Your task to perform on an android device: open device folders in google photos Image 0: 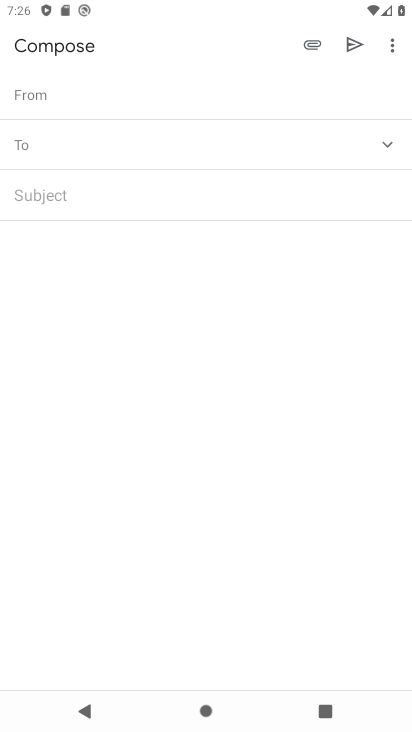
Step 0: press home button
Your task to perform on an android device: open device folders in google photos Image 1: 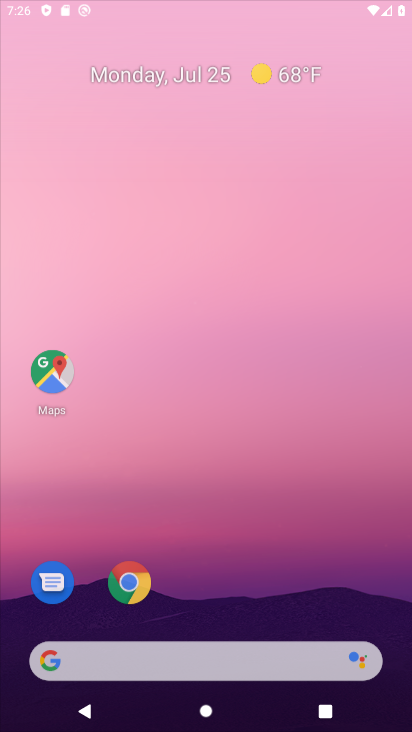
Step 1: press home button
Your task to perform on an android device: open device folders in google photos Image 2: 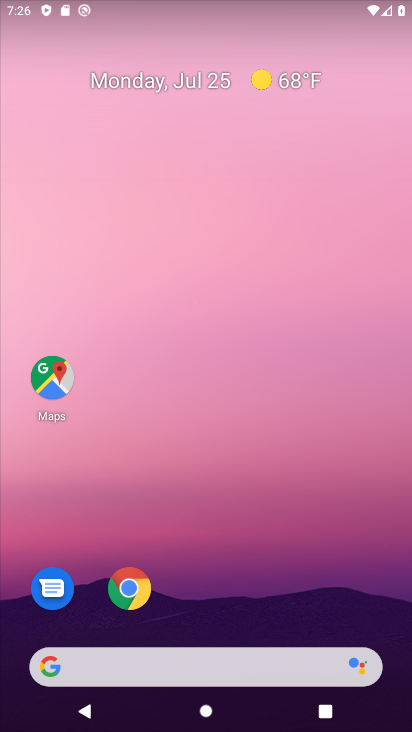
Step 2: drag from (366, 618) to (380, 87)
Your task to perform on an android device: open device folders in google photos Image 3: 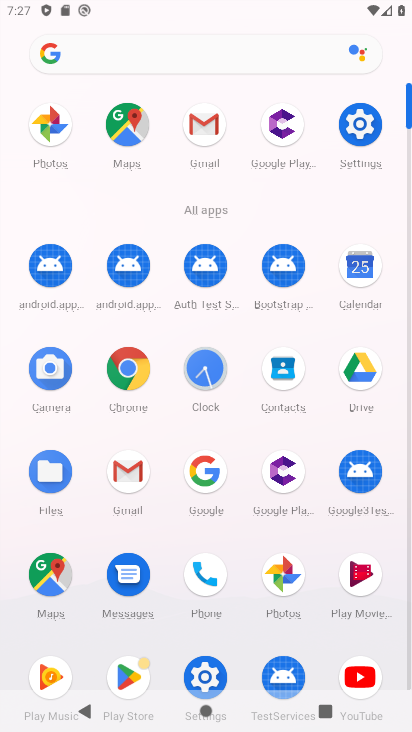
Step 3: click (279, 582)
Your task to perform on an android device: open device folders in google photos Image 4: 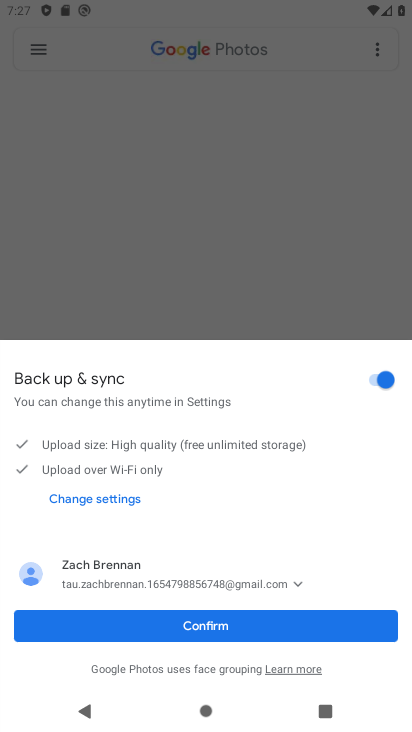
Step 4: click (237, 626)
Your task to perform on an android device: open device folders in google photos Image 5: 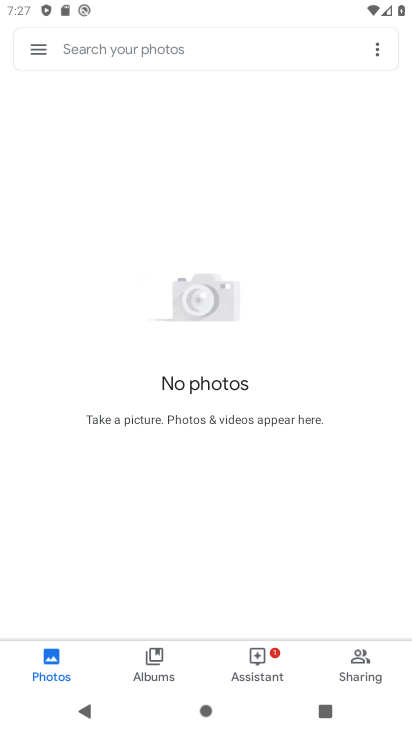
Step 5: click (40, 48)
Your task to perform on an android device: open device folders in google photos Image 6: 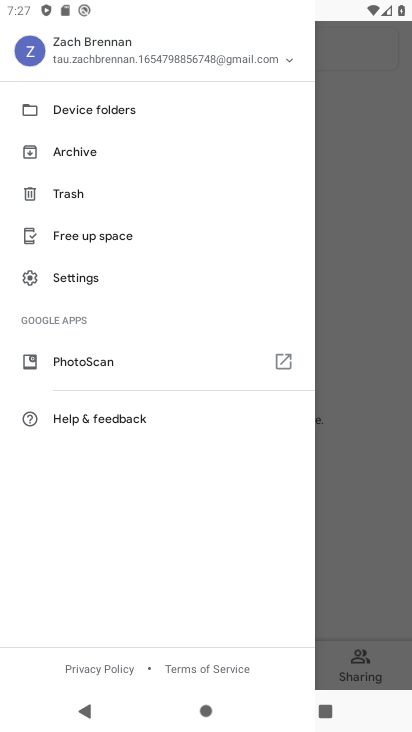
Step 6: click (143, 109)
Your task to perform on an android device: open device folders in google photos Image 7: 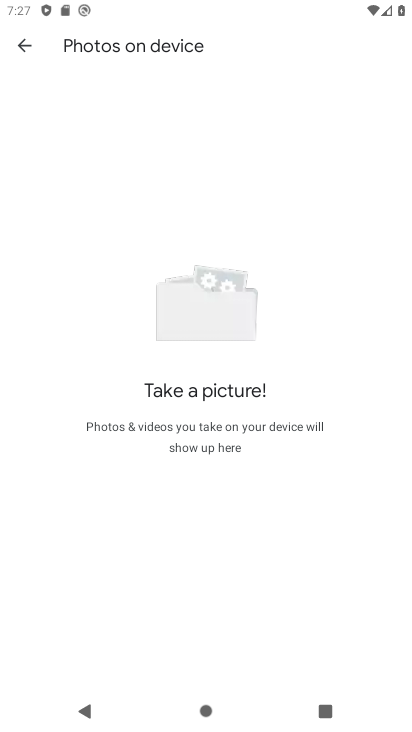
Step 7: task complete